Your task to perform on an android device: turn off picture-in-picture Image 0: 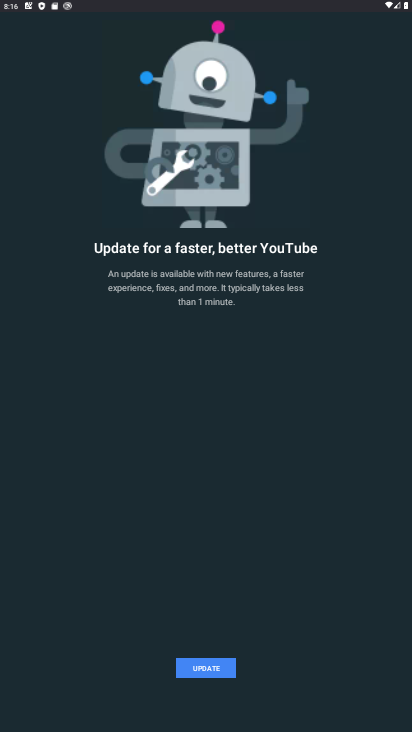
Step 0: press home button
Your task to perform on an android device: turn off picture-in-picture Image 1: 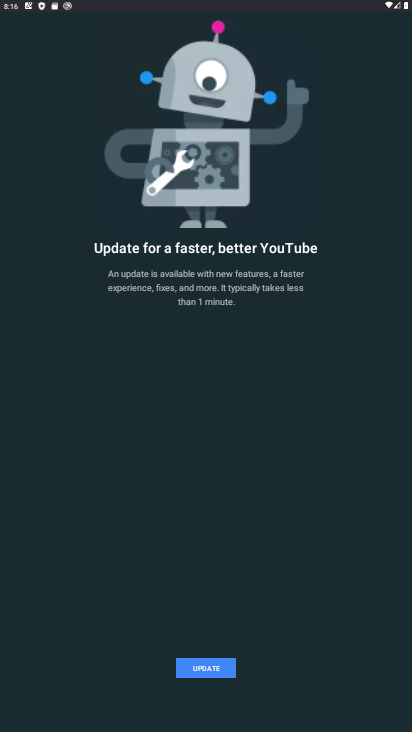
Step 1: press home button
Your task to perform on an android device: turn off picture-in-picture Image 2: 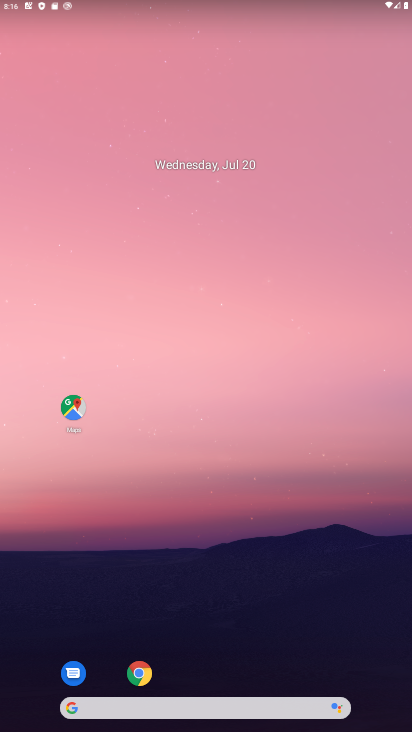
Step 2: drag from (196, 653) to (263, 174)
Your task to perform on an android device: turn off picture-in-picture Image 3: 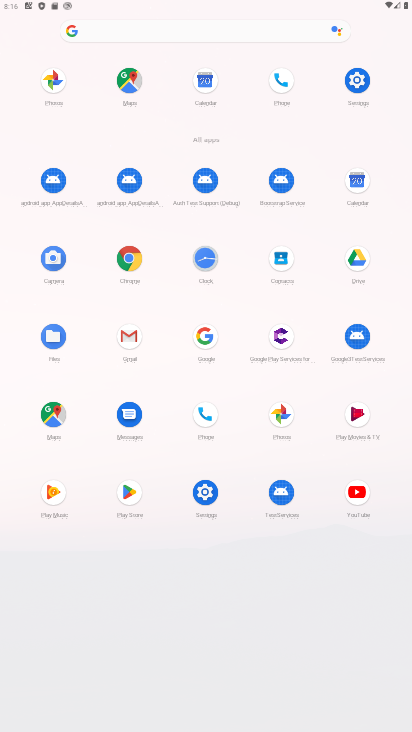
Step 3: click (204, 492)
Your task to perform on an android device: turn off picture-in-picture Image 4: 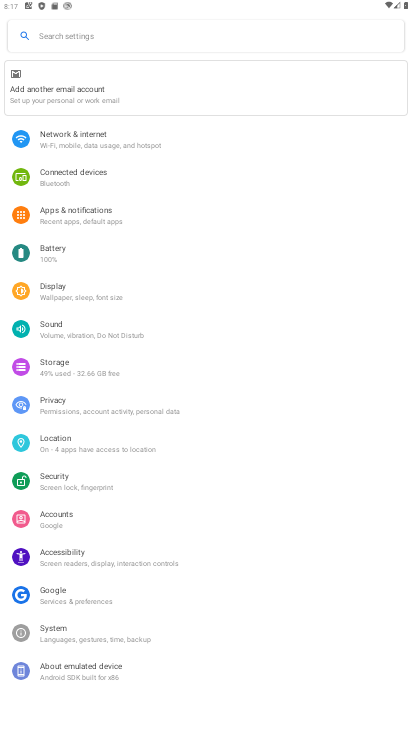
Step 4: click (135, 227)
Your task to perform on an android device: turn off picture-in-picture Image 5: 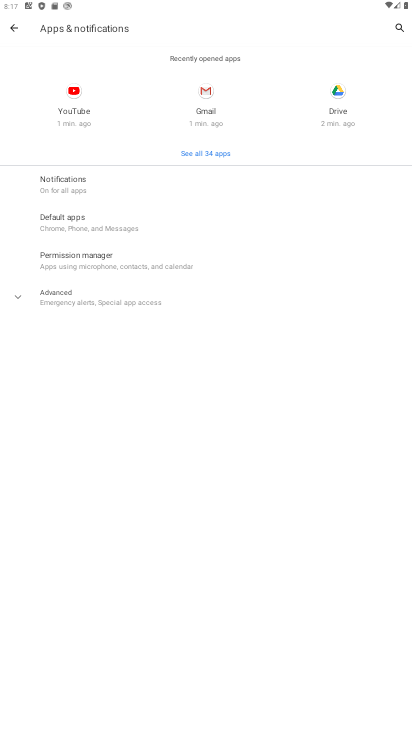
Step 5: click (73, 304)
Your task to perform on an android device: turn off picture-in-picture Image 6: 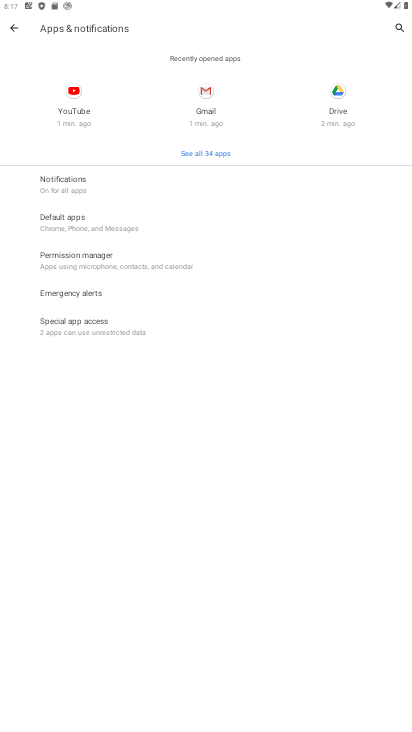
Step 6: click (93, 327)
Your task to perform on an android device: turn off picture-in-picture Image 7: 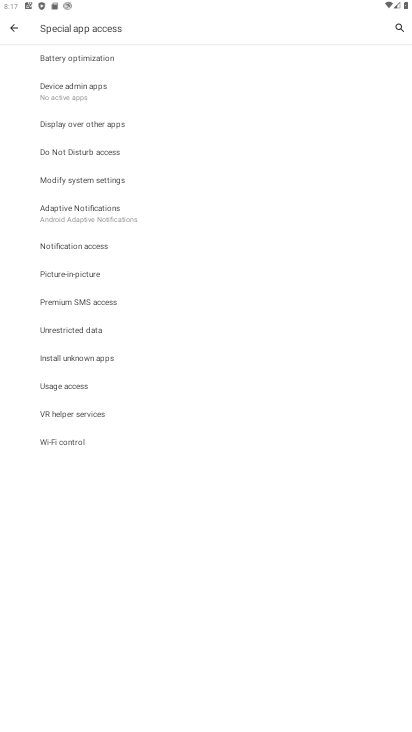
Step 7: click (68, 276)
Your task to perform on an android device: turn off picture-in-picture Image 8: 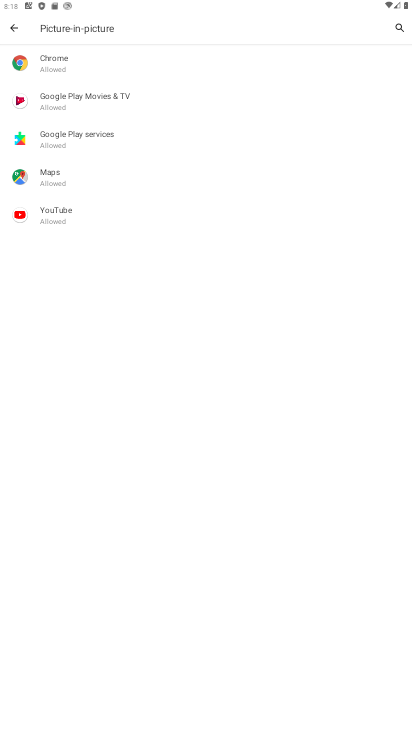
Step 8: task complete